Your task to perform on an android device: turn off picture-in-picture Image 0: 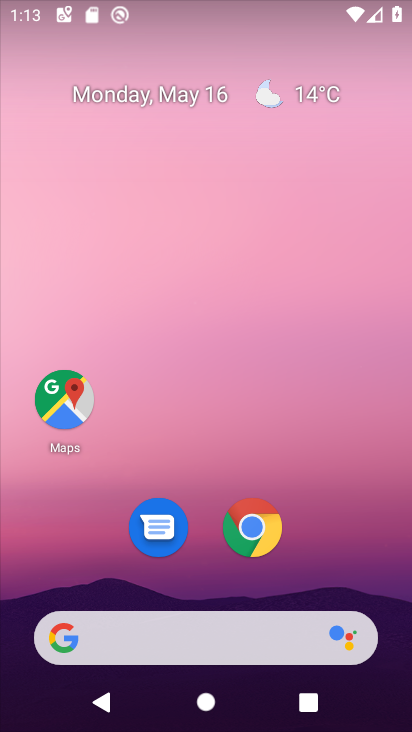
Step 0: click (240, 517)
Your task to perform on an android device: turn off picture-in-picture Image 1: 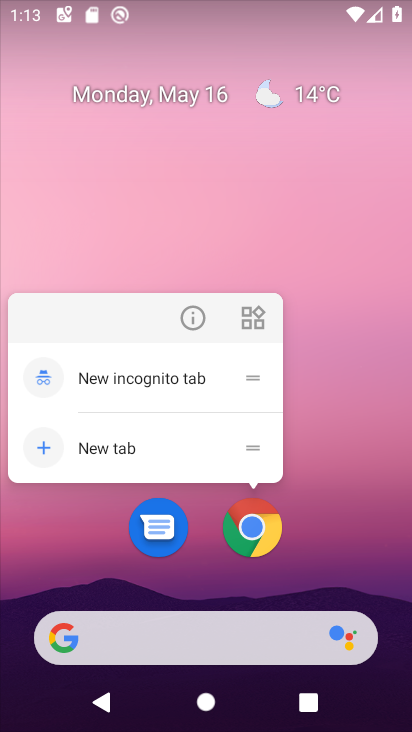
Step 1: click (191, 317)
Your task to perform on an android device: turn off picture-in-picture Image 2: 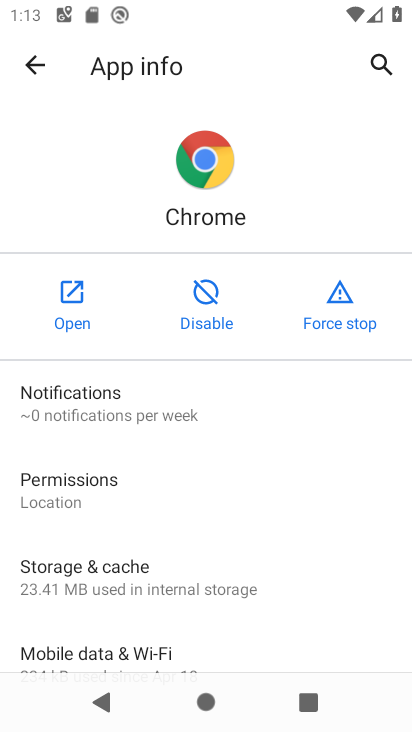
Step 2: drag from (119, 554) to (170, 339)
Your task to perform on an android device: turn off picture-in-picture Image 3: 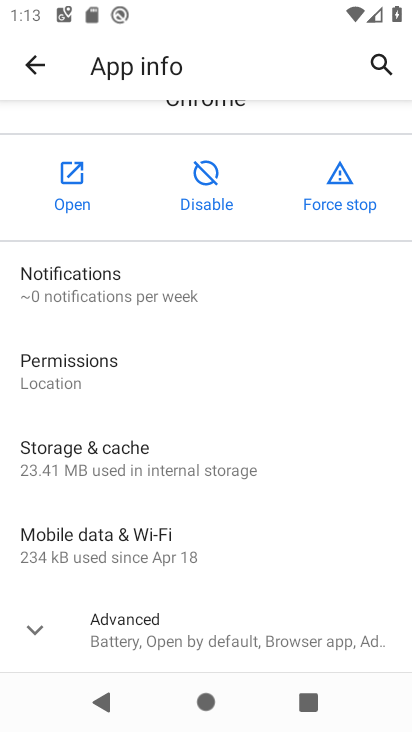
Step 3: click (119, 622)
Your task to perform on an android device: turn off picture-in-picture Image 4: 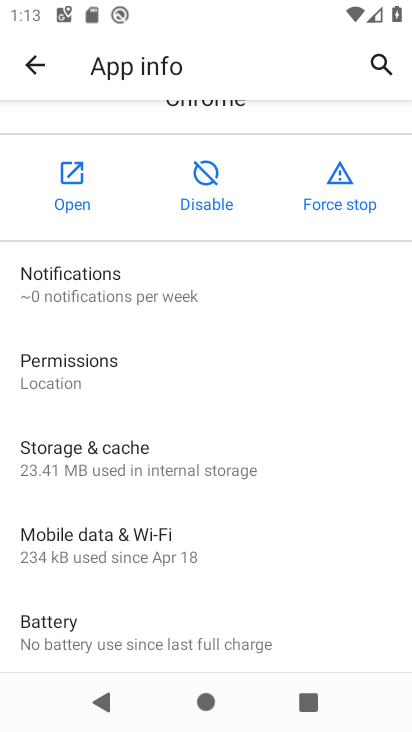
Step 4: drag from (144, 501) to (221, 252)
Your task to perform on an android device: turn off picture-in-picture Image 5: 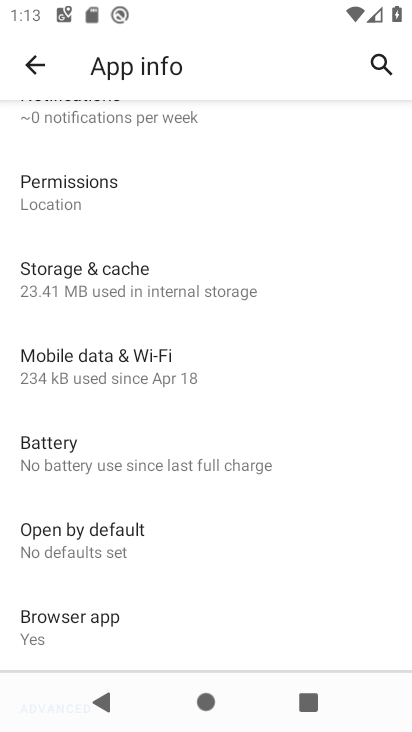
Step 5: drag from (157, 500) to (214, 154)
Your task to perform on an android device: turn off picture-in-picture Image 6: 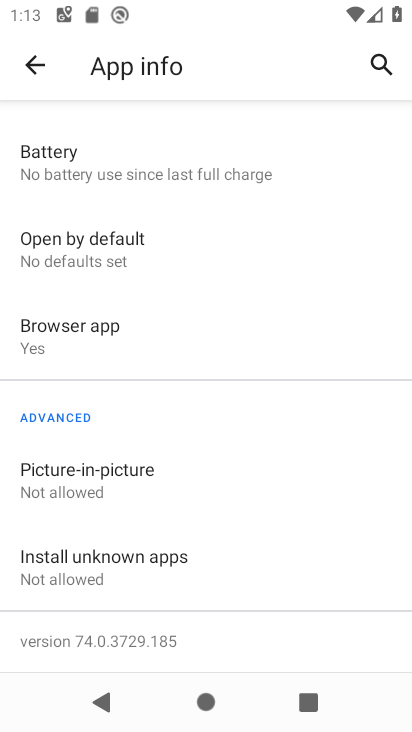
Step 6: click (103, 481)
Your task to perform on an android device: turn off picture-in-picture Image 7: 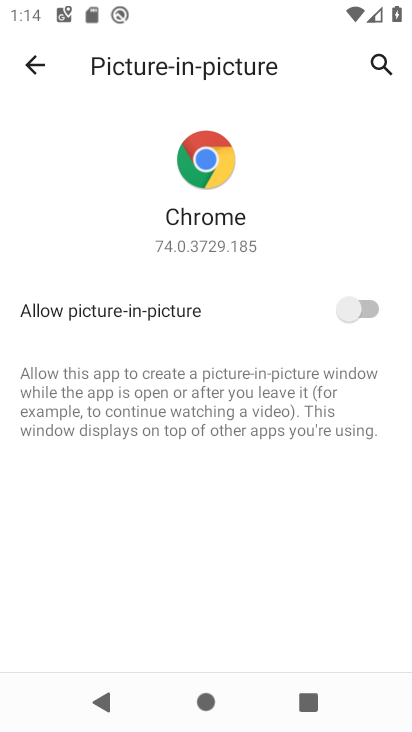
Step 7: task complete